Your task to perform on an android device: add a contact in the contacts app Image 0: 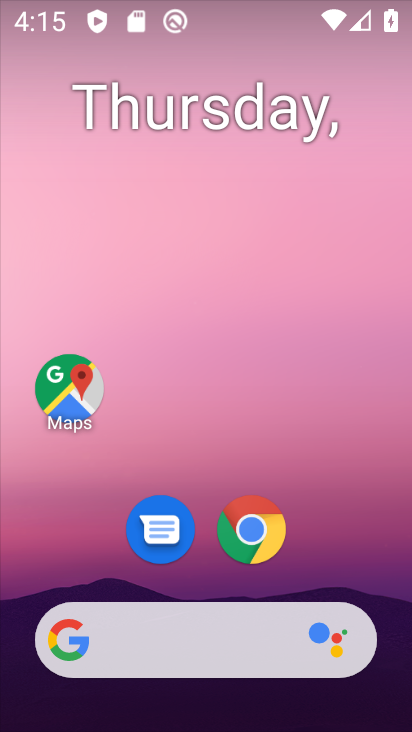
Step 0: drag from (170, 724) to (164, 14)
Your task to perform on an android device: add a contact in the contacts app Image 1: 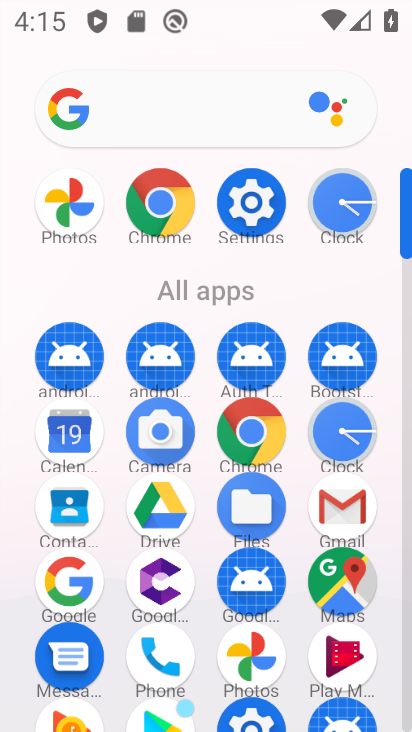
Step 1: click (59, 518)
Your task to perform on an android device: add a contact in the contacts app Image 2: 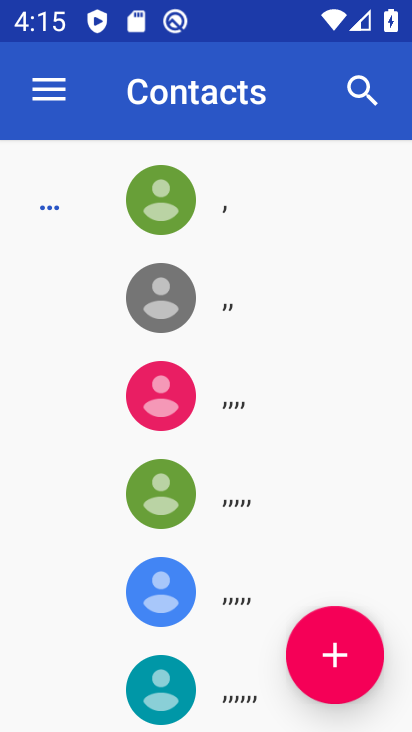
Step 2: click (333, 644)
Your task to perform on an android device: add a contact in the contacts app Image 3: 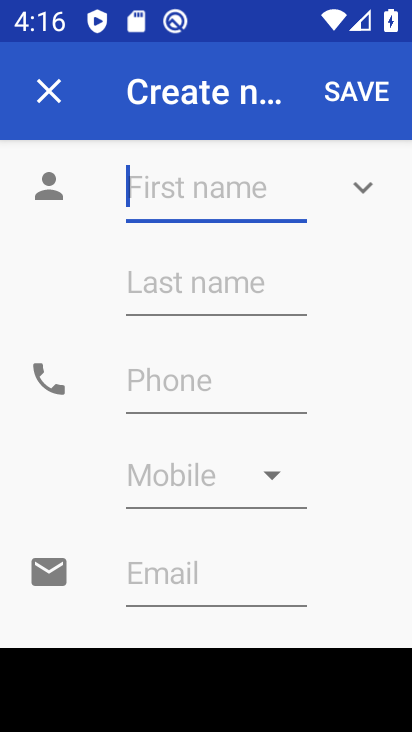
Step 3: type "bnm"
Your task to perform on an android device: add a contact in the contacts app Image 4: 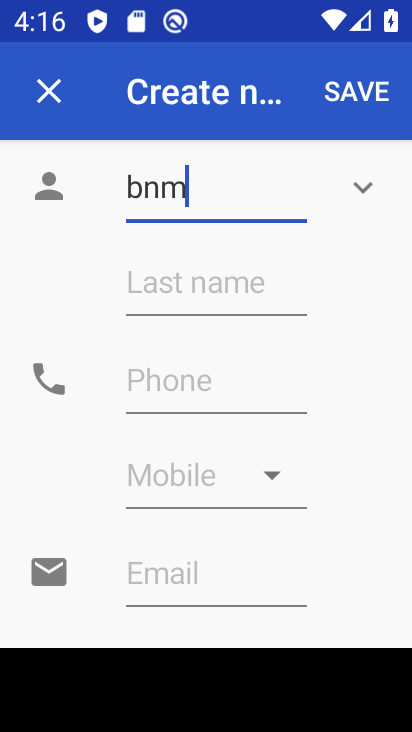
Step 4: type ""
Your task to perform on an android device: add a contact in the contacts app Image 5: 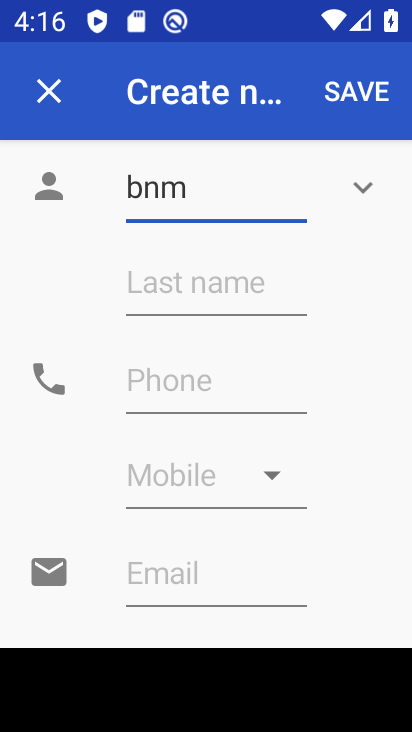
Step 5: click (166, 387)
Your task to perform on an android device: add a contact in the contacts app Image 6: 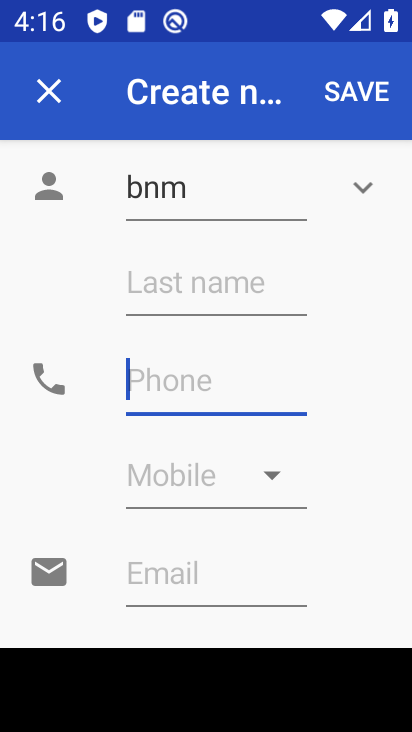
Step 6: type "8888"
Your task to perform on an android device: add a contact in the contacts app Image 7: 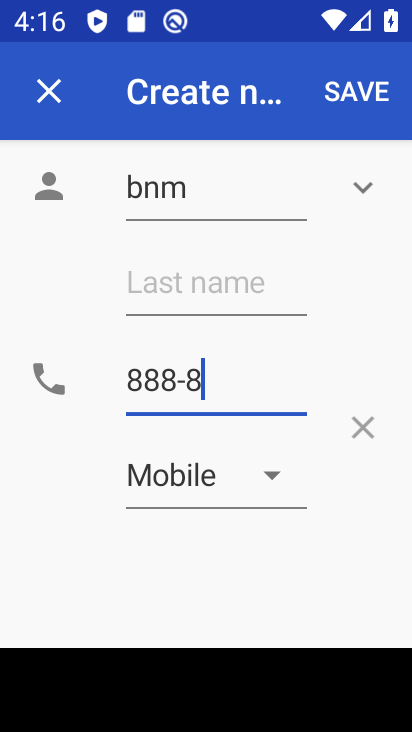
Step 7: type ""
Your task to perform on an android device: add a contact in the contacts app Image 8: 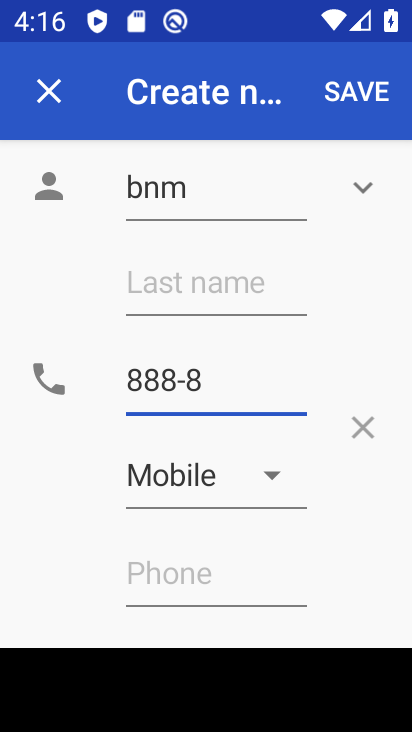
Step 8: click (347, 86)
Your task to perform on an android device: add a contact in the contacts app Image 9: 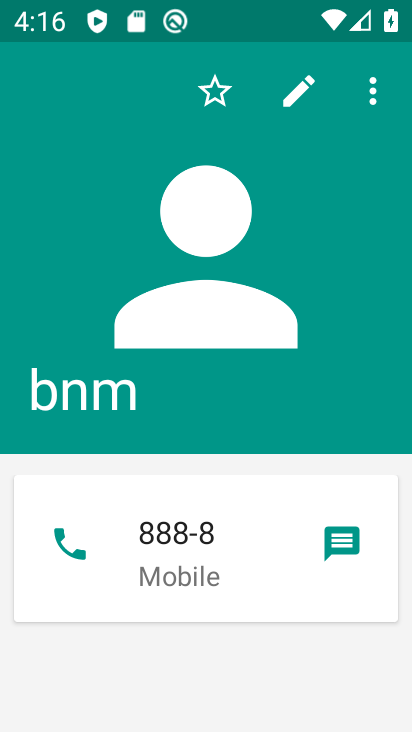
Step 9: task complete